Your task to perform on an android device: Open calendar and show me the second week of next month Image 0: 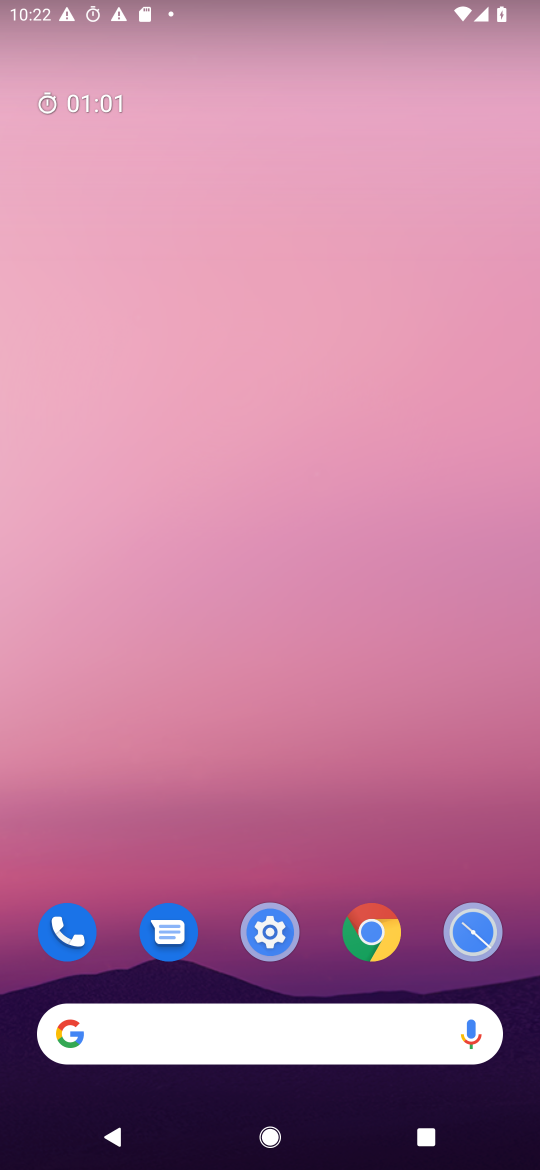
Step 0: drag from (326, 867) to (272, 159)
Your task to perform on an android device: Open calendar and show me the second week of next month Image 1: 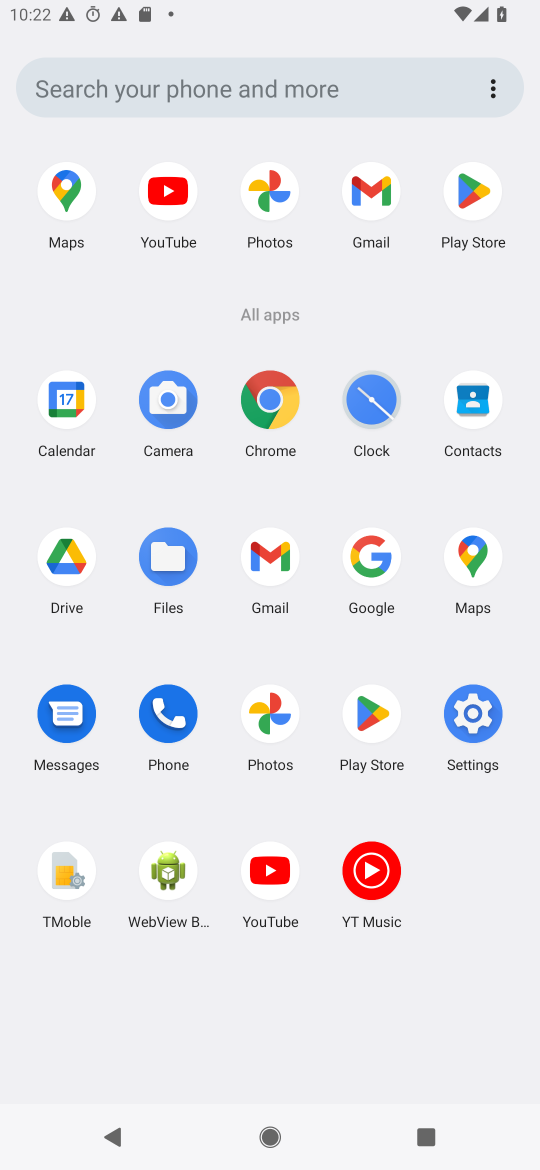
Step 1: click (61, 418)
Your task to perform on an android device: Open calendar and show me the second week of next month Image 2: 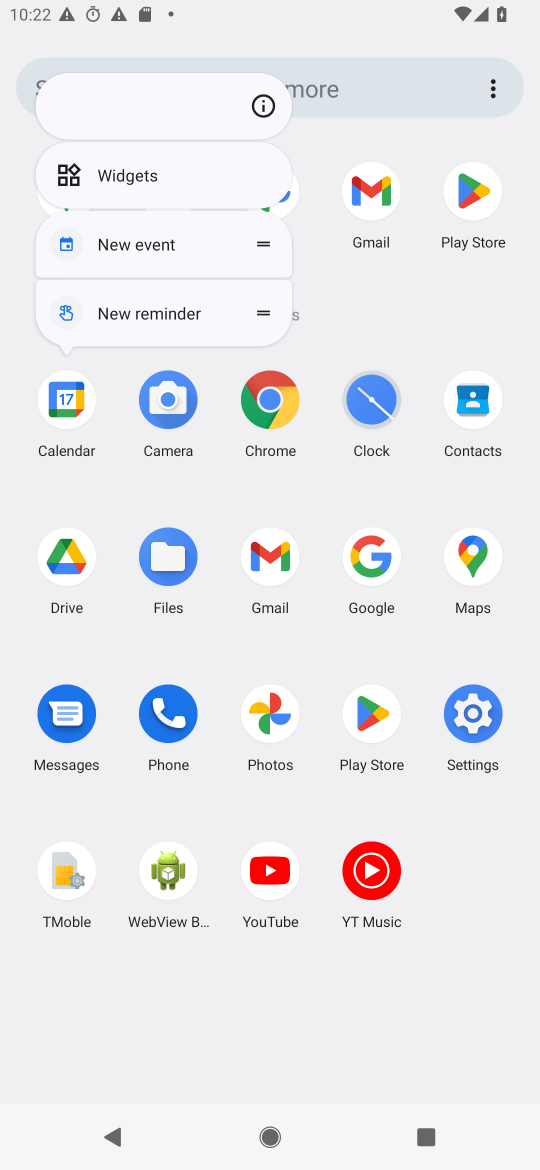
Step 2: click (61, 418)
Your task to perform on an android device: Open calendar and show me the second week of next month Image 3: 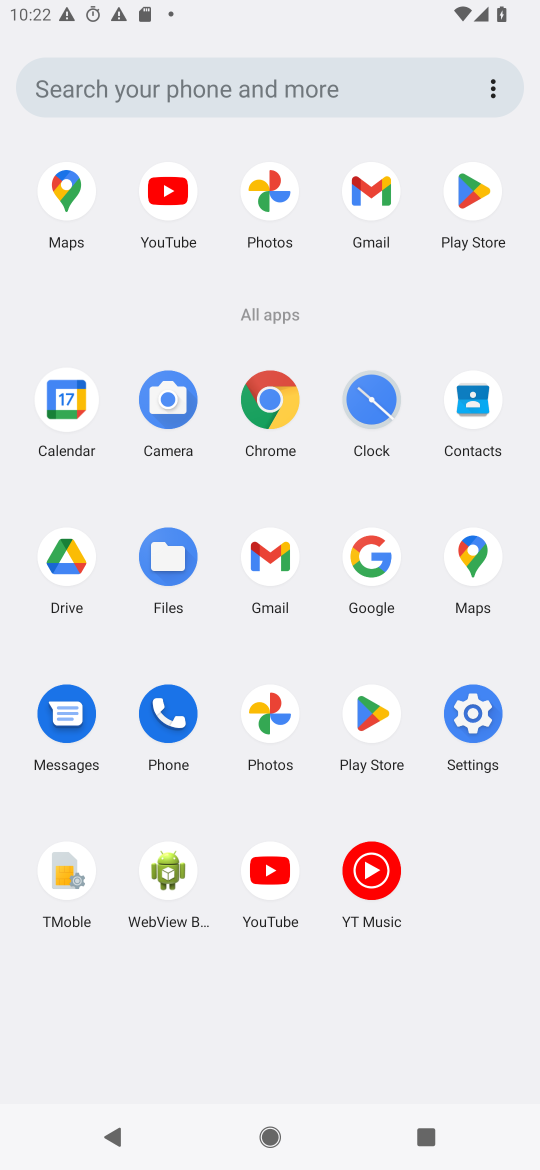
Step 3: click (57, 427)
Your task to perform on an android device: Open calendar and show me the second week of next month Image 4: 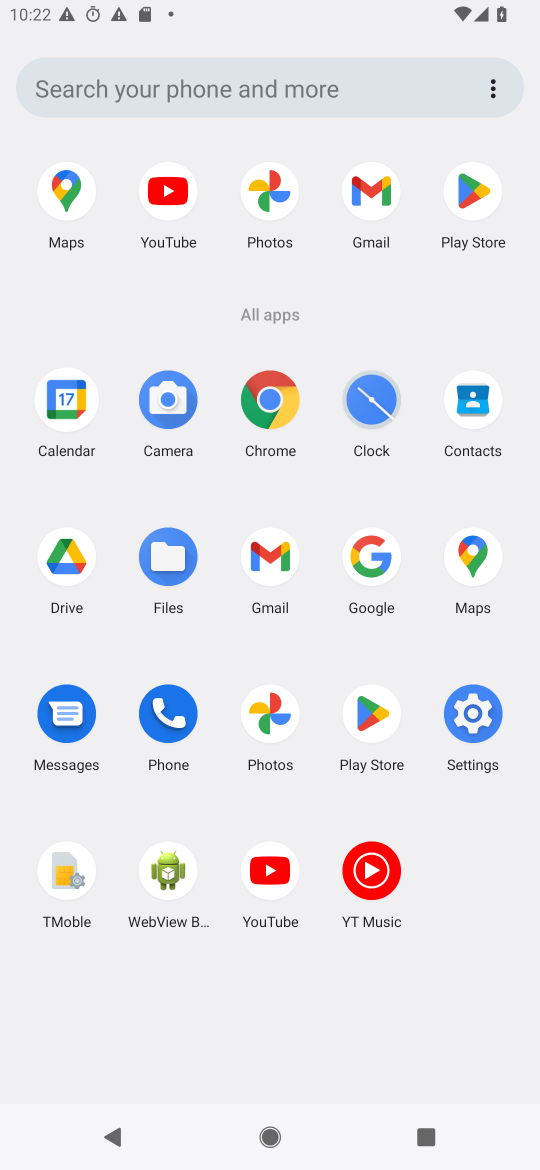
Step 4: click (66, 418)
Your task to perform on an android device: Open calendar and show me the second week of next month Image 5: 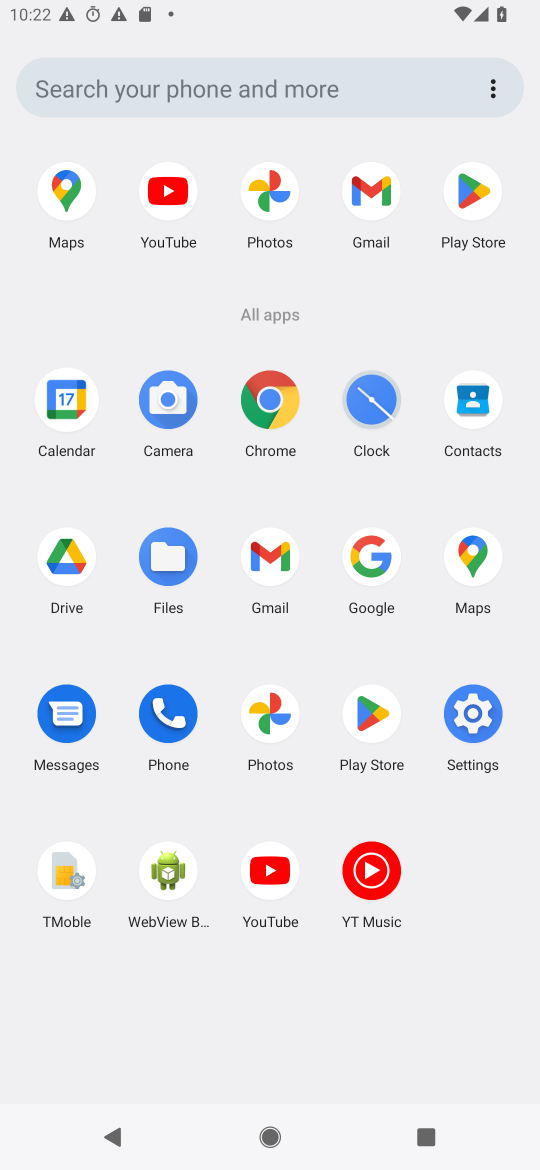
Step 5: click (70, 420)
Your task to perform on an android device: Open calendar and show me the second week of next month Image 6: 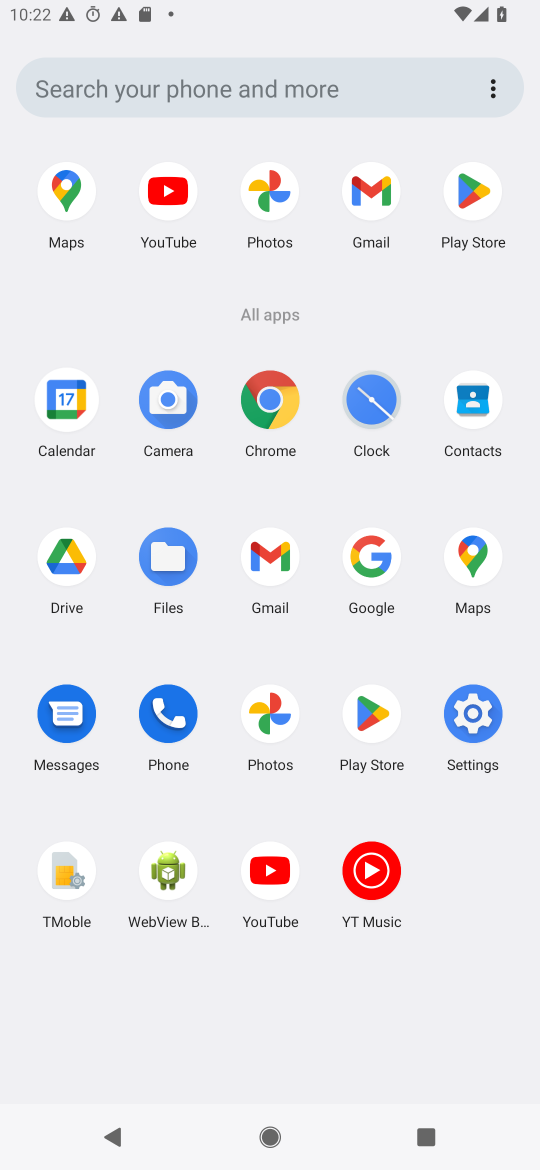
Step 6: drag from (253, 801) to (235, 358)
Your task to perform on an android device: Open calendar and show me the second week of next month Image 7: 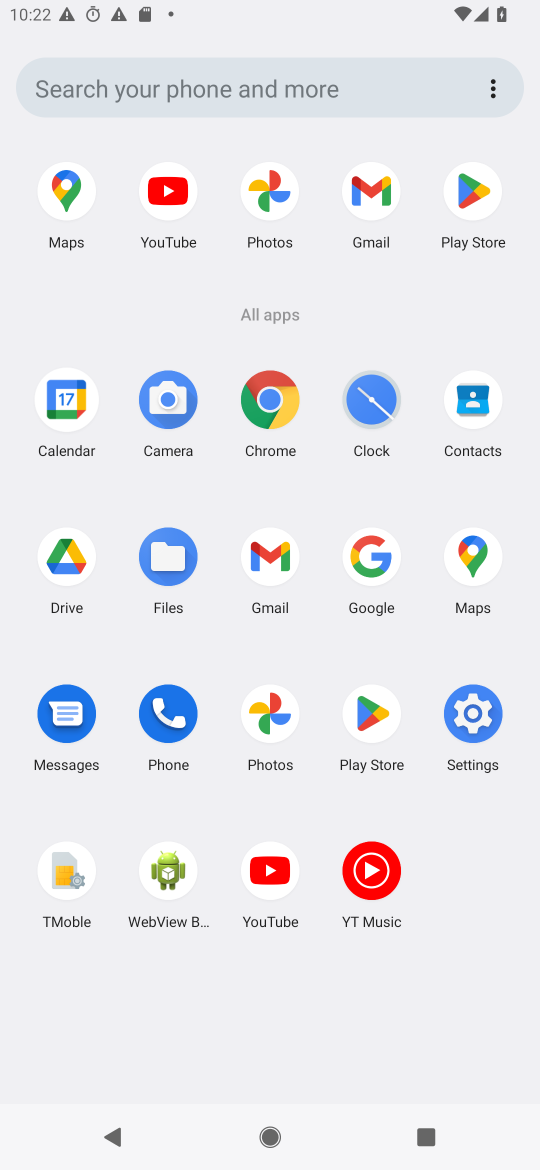
Step 7: click (88, 418)
Your task to perform on an android device: Open calendar and show me the second week of next month Image 8: 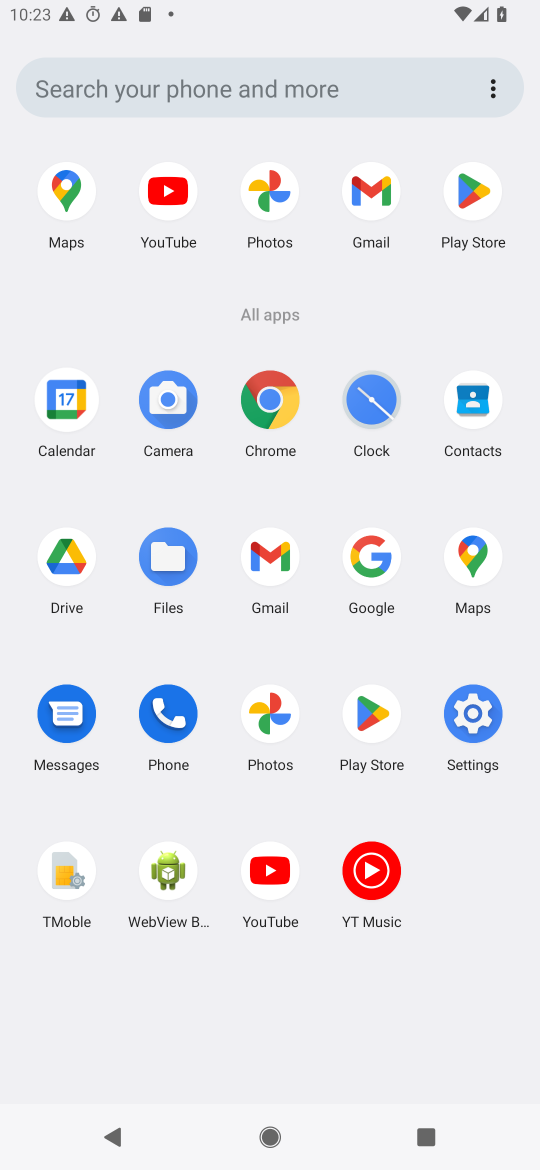
Step 8: click (88, 418)
Your task to perform on an android device: Open calendar and show me the second week of next month Image 9: 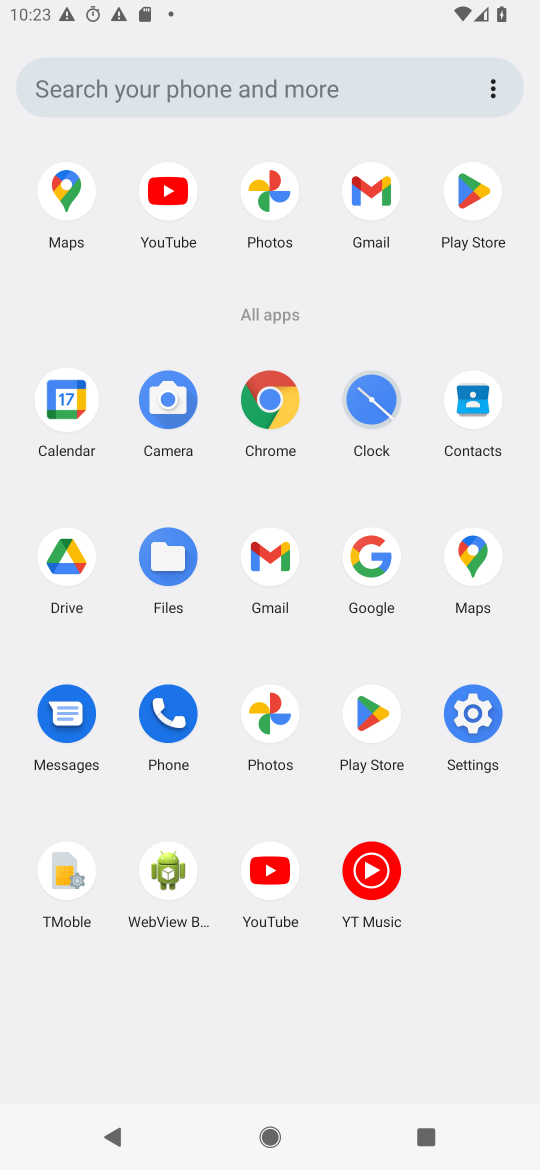
Step 9: task complete